Your task to perform on an android device: see tabs open on other devices in the chrome app Image 0: 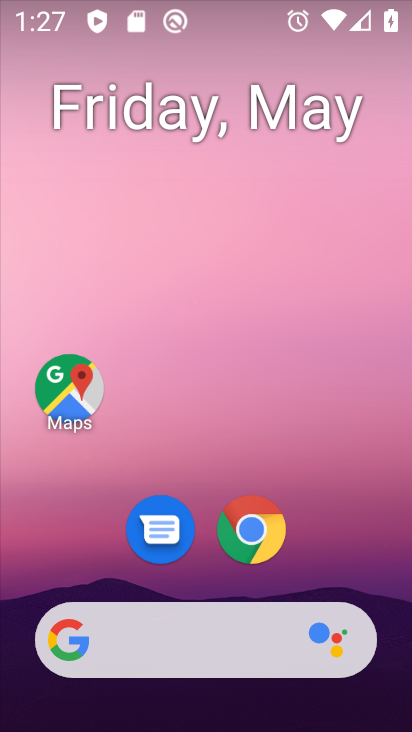
Step 0: click (263, 528)
Your task to perform on an android device: see tabs open on other devices in the chrome app Image 1: 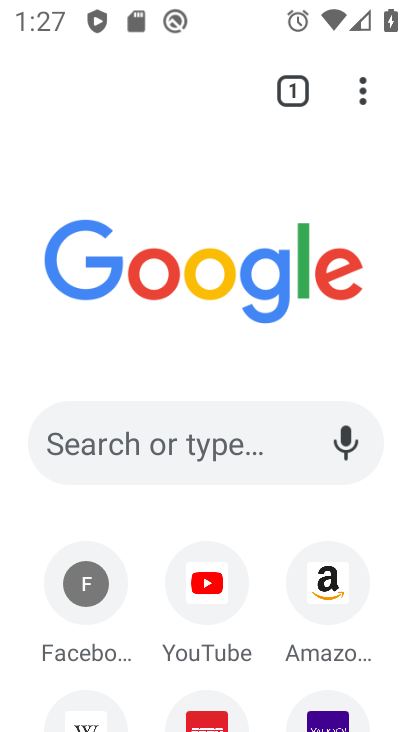
Step 1: click (362, 95)
Your task to perform on an android device: see tabs open on other devices in the chrome app Image 2: 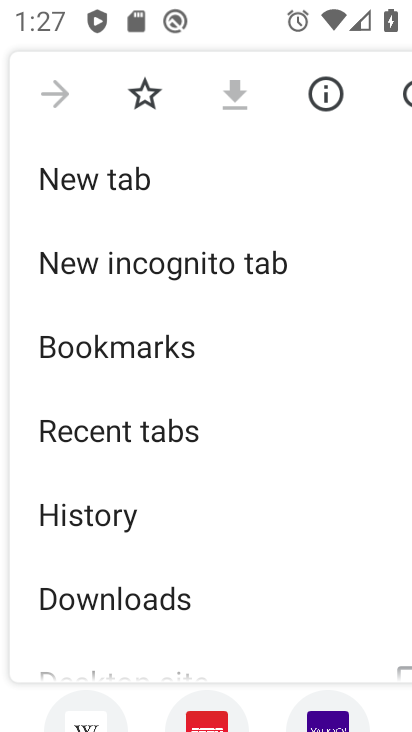
Step 2: click (101, 435)
Your task to perform on an android device: see tabs open on other devices in the chrome app Image 3: 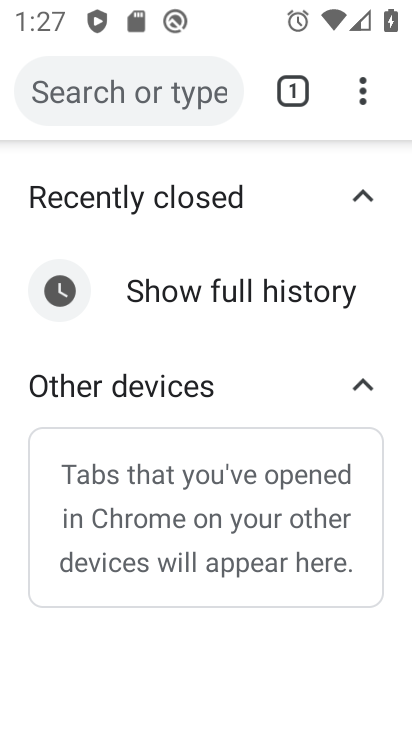
Step 3: task complete